Your task to perform on an android device: Go to settings Image 0: 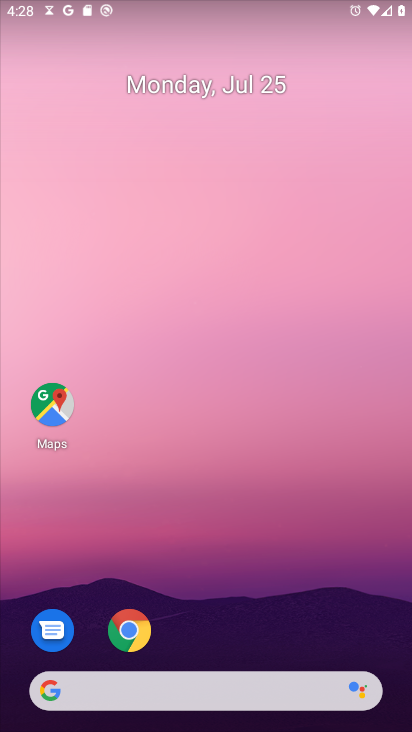
Step 0: drag from (200, 685) to (192, 70)
Your task to perform on an android device: Go to settings Image 1: 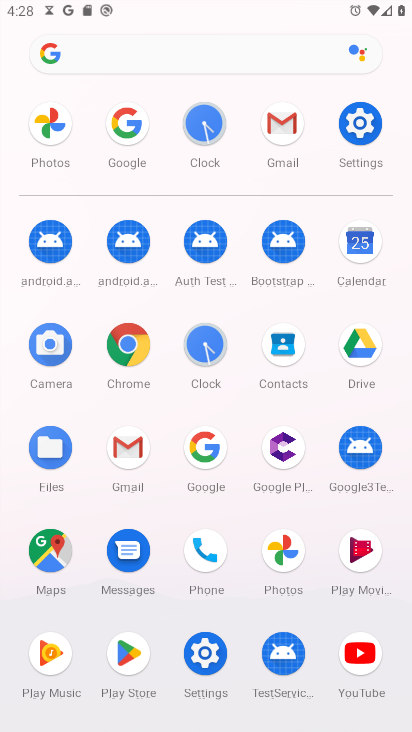
Step 1: click (205, 652)
Your task to perform on an android device: Go to settings Image 2: 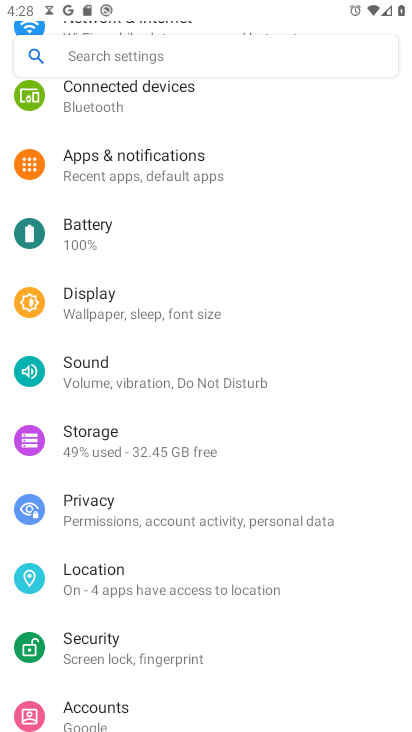
Step 2: task complete